Your task to perform on an android device: Add "razer huntsman" to the cart on bestbuy Image 0: 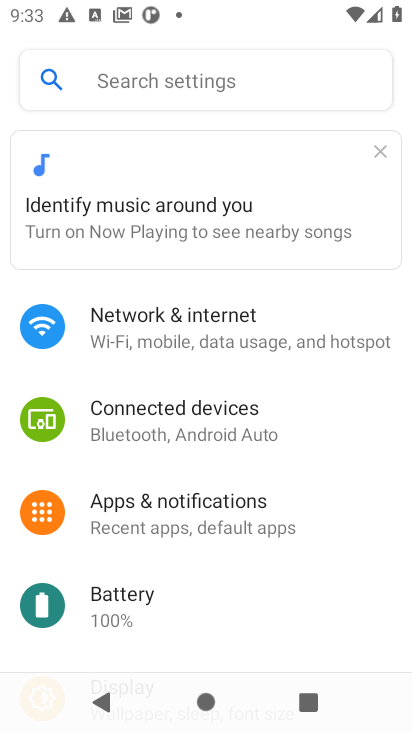
Step 0: press home button
Your task to perform on an android device: Add "razer huntsman" to the cart on bestbuy Image 1: 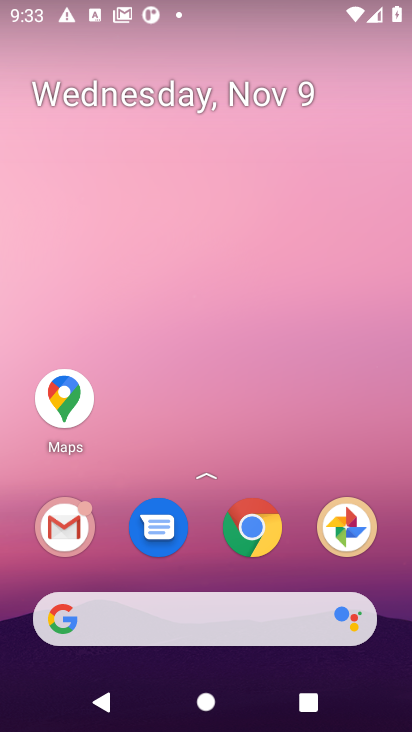
Step 1: click (252, 530)
Your task to perform on an android device: Add "razer huntsman" to the cart on bestbuy Image 2: 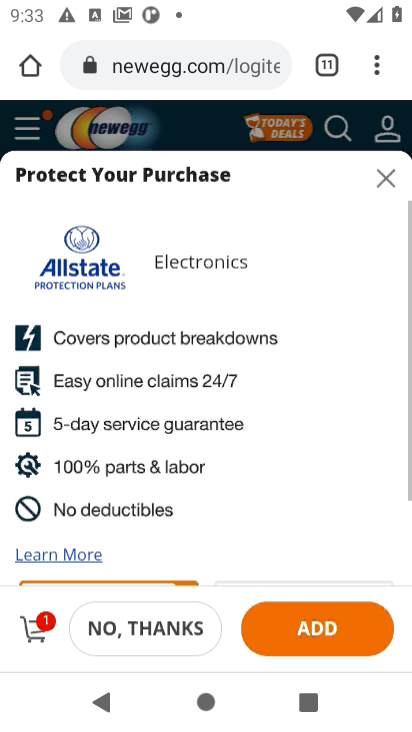
Step 2: click (168, 72)
Your task to perform on an android device: Add "razer huntsman" to the cart on bestbuy Image 3: 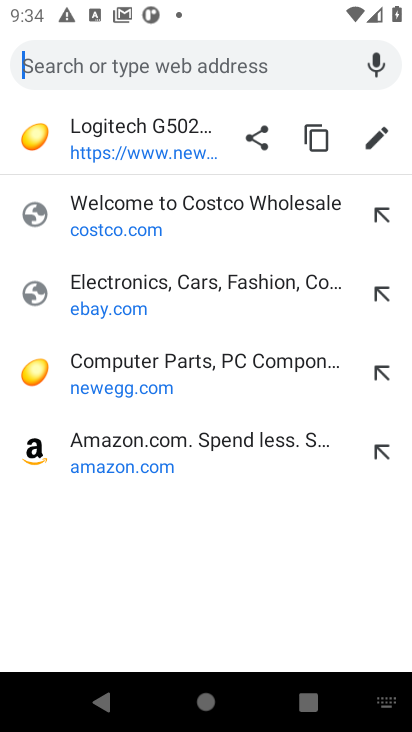
Step 3: type "bestbuy.com"
Your task to perform on an android device: Add "razer huntsman" to the cart on bestbuy Image 4: 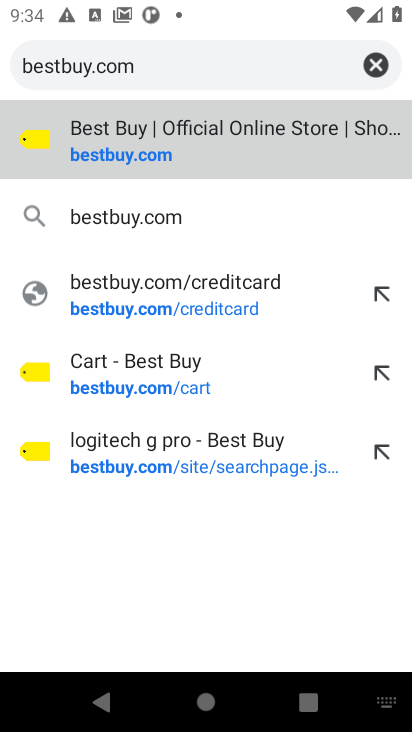
Step 4: click (125, 143)
Your task to perform on an android device: Add "razer huntsman" to the cart on bestbuy Image 5: 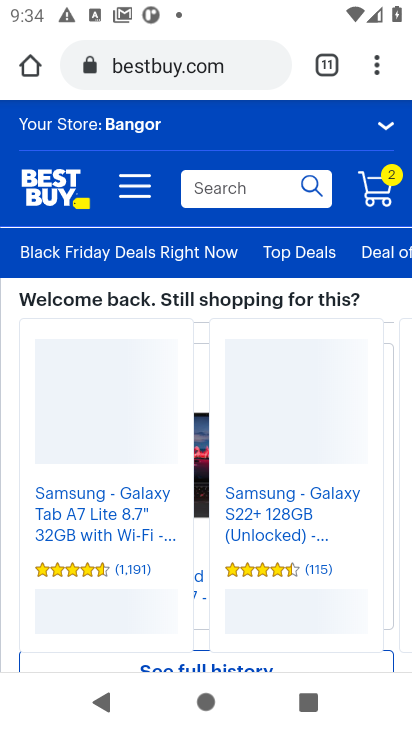
Step 5: click (205, 198)
Your task to perform on an android device: Add "razer huntsman" to the cart on bestbuy Image 6: 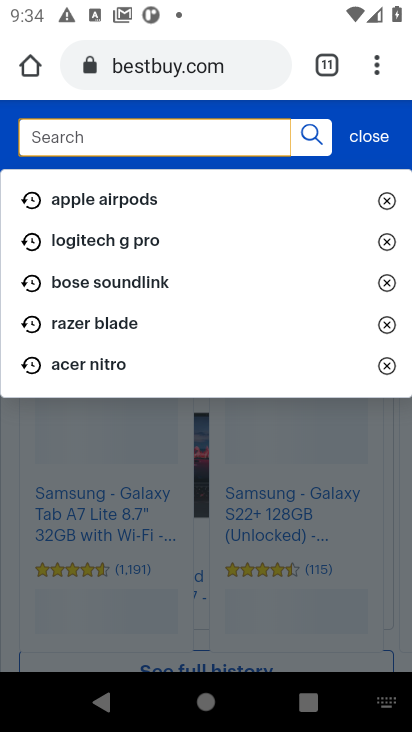
Step 6: type "razer huntsman"
Your task to perform on an android device: Add "razer huntsman" to the cart on bestbuy Image 7: 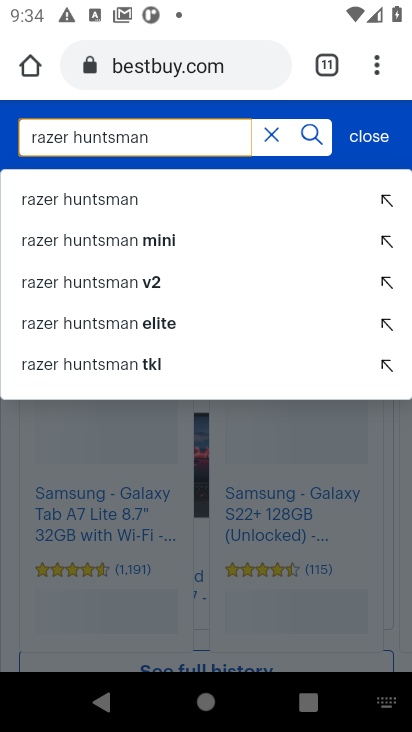
Step 7: click (59, 210)
Your task to perform on an android device: Add "razer huntsman" to the cart on bestbuy Image 8: 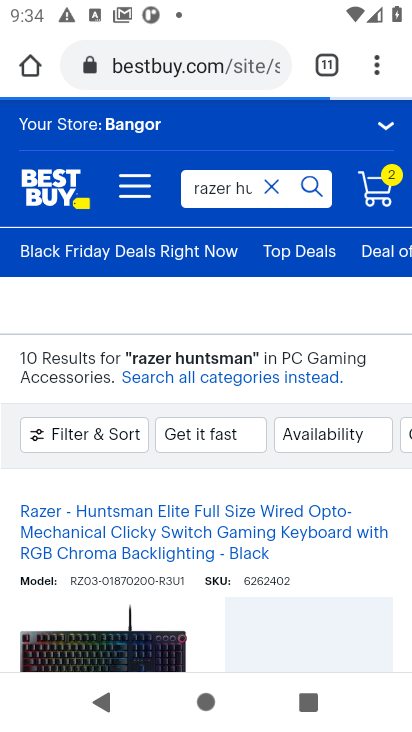
Step 8: drag from (181, 465) to (136, 229)
Your task to perform on an android device: Add "razer huntsman" to the cart on bestbuy Image 9: 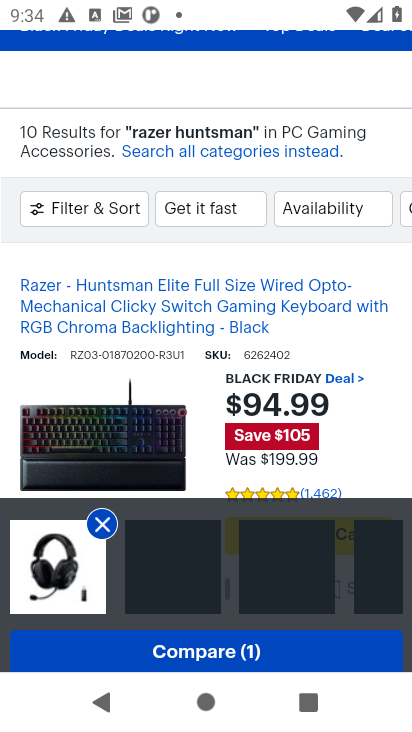
Step 9: drag from (136, 416) to (126, 265)
Your task to perform on an android device: Add "razer huntsman" to the cart on bestbuy Image 10: 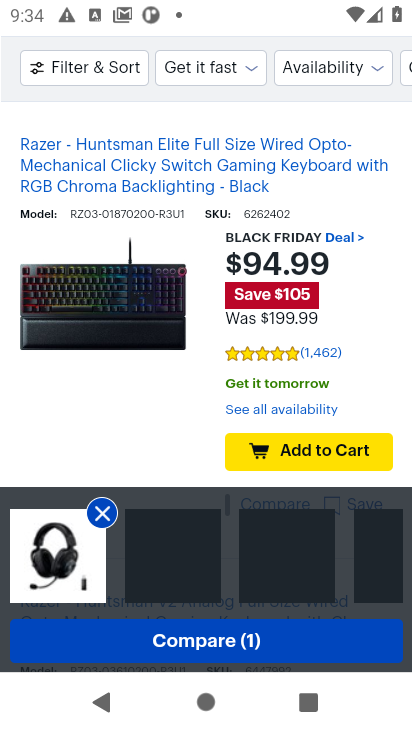
Step 10: click (310, 444)
Your task to perform on an android device: Add "razer huntsman" to the cart on bestbuy Image 11: 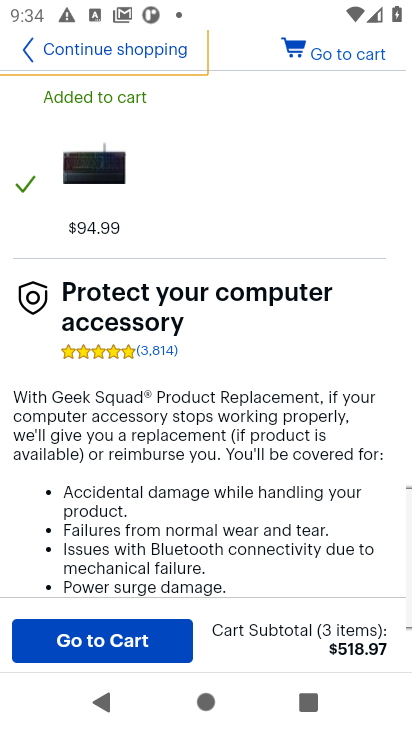
Step 11: task complete